Your task to perform on an android device: Find coffee shops on Maps Image 0: 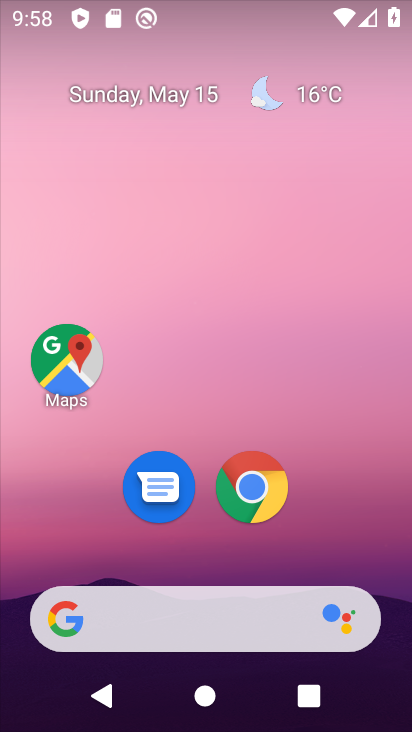
Step 0: click (63, 360)
Your task to perform on an android device: Find coffee shops on Maps Image 1: 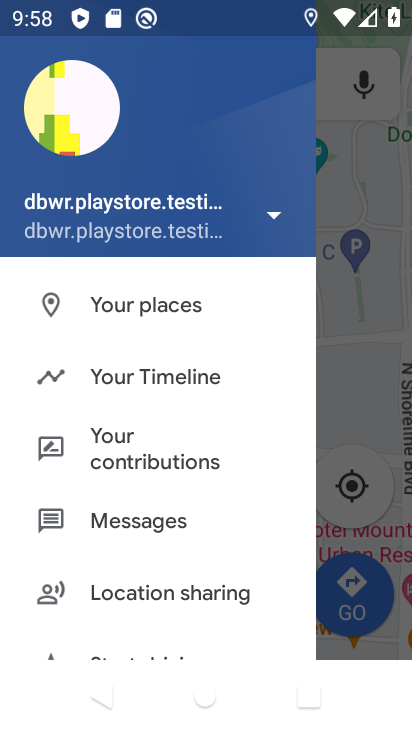
Step 1: click (365, 369)
Your task to perform on an android device: Find coffee shops on Maps Image 2: 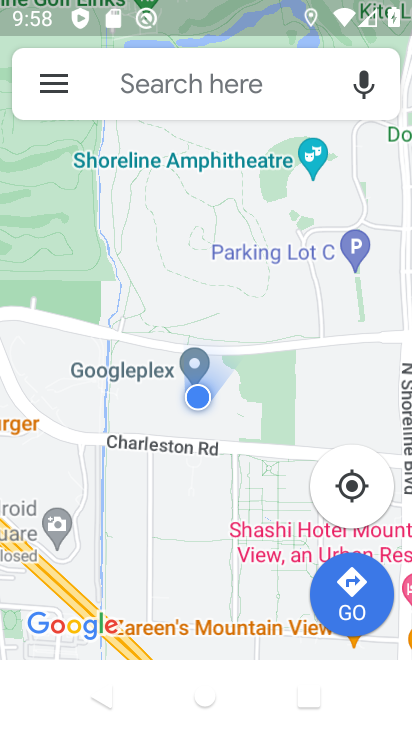
Step 2: click (172, 89)
Your task to perform on an android device: Find coffee shops on Maps Image 3: 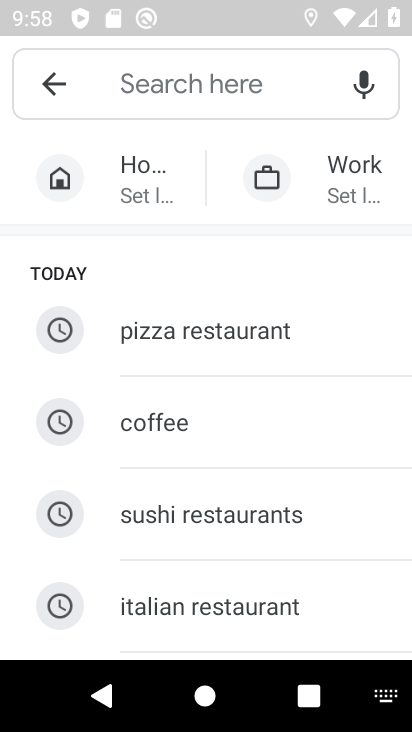
Step 3: type "coffee shop"
Your task to perform on an android device: Find coffee shops on Maps Image 4: 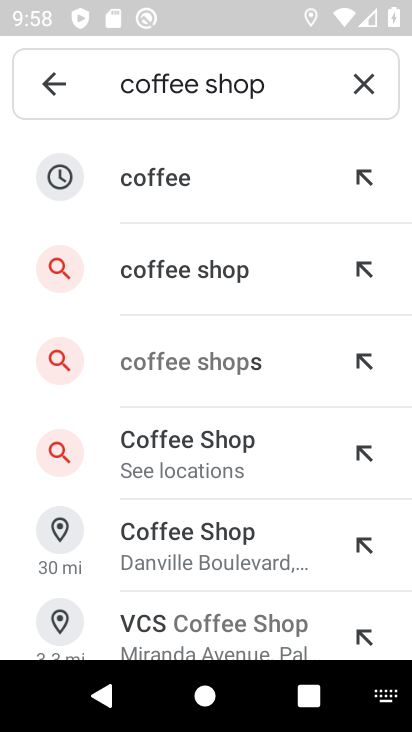
Step 4: click (166, 176)
Your task to perform on an android device: Find coffee shops on Maps Image 5: 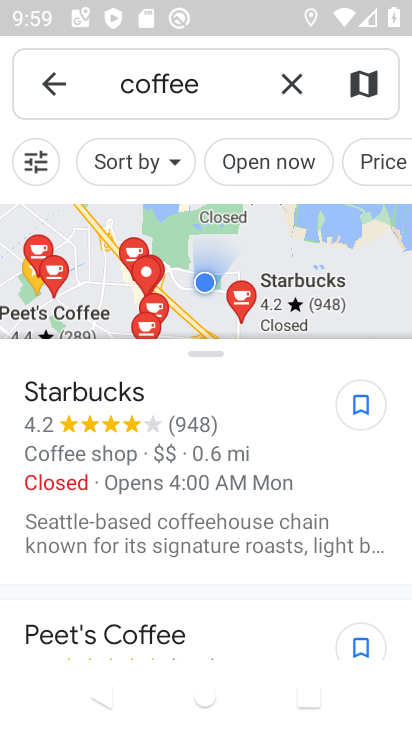
Step 5: task complete